Your task to perform on an android device: turn off notifications in google photos Image 0: 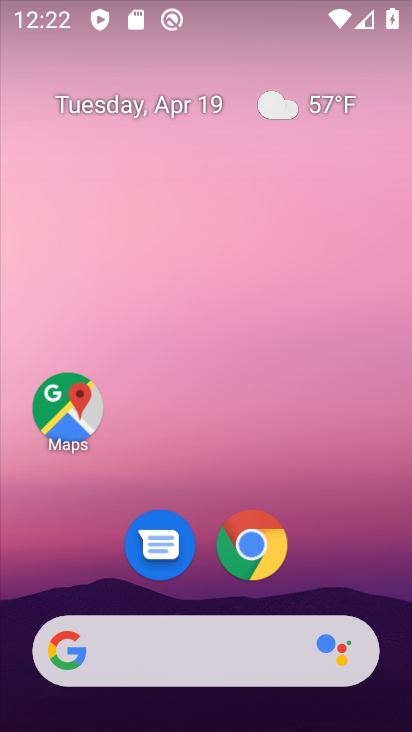
Step 0: drag from (198, 489) to (260, 7)
Your task to perform on an android device: turn off notifications in google photos Image 1: 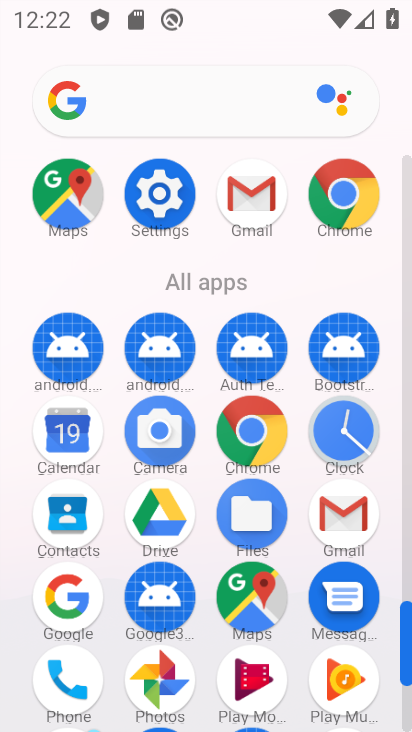
Step 1: click (172, 670)
Your task to perform on an android device: turn off notifications in google photos Image 2: 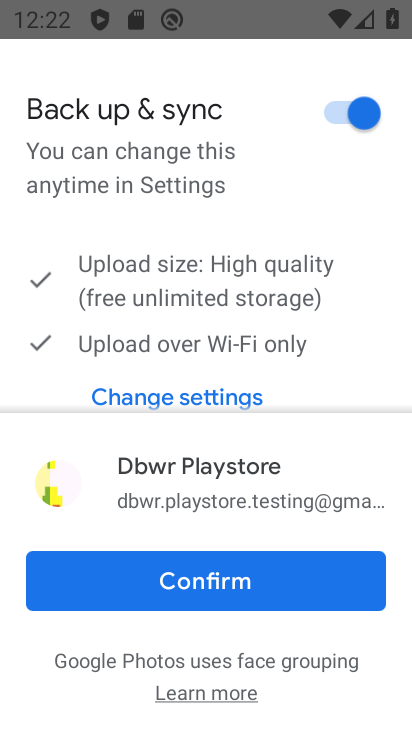
Step 2: click (196, 575)
Your task to perform on an android device: turn off notifications in google photos Image 3: 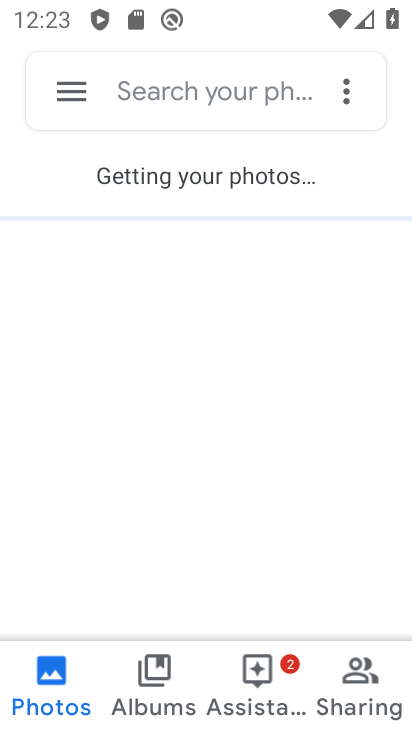
Step 3: click (61, 85)
Your task to perform on an android device: turn off notifications in google photos Image 4: 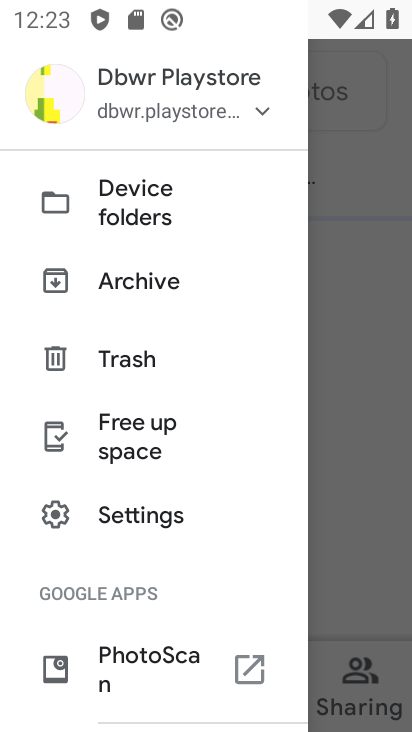
Step 4: drag from (164, 607) to (270, 96)
Your task to perform on an android device: turn off notifications in google photos Image 5: 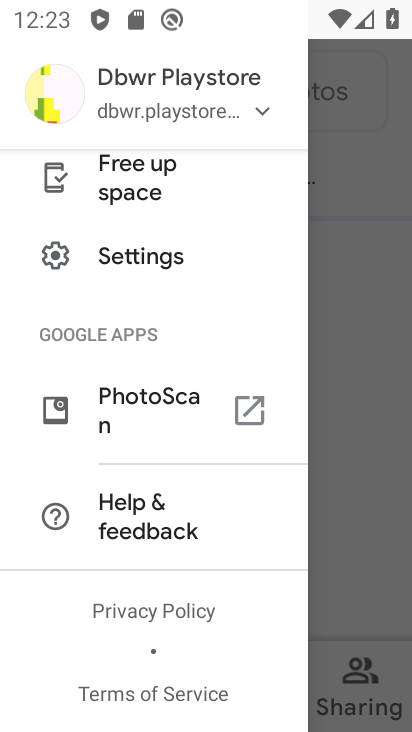
Step 5: click (125, 255)
Your task to perform on an android device: turn off notifications in google photos Image 6: 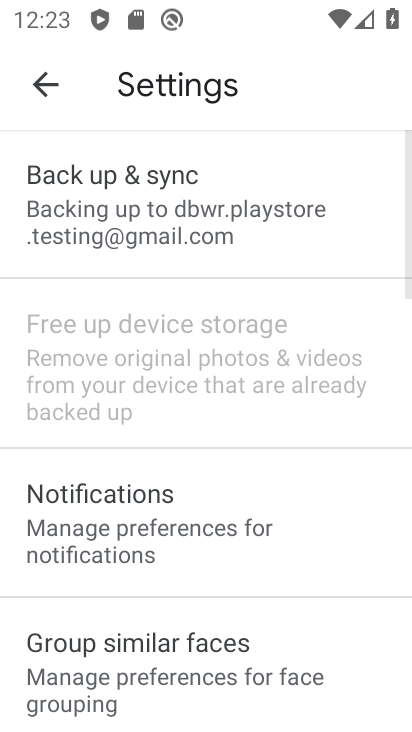
Step 6: click (138, 516)
Your task to perform on an android device: turn off notifications in google photos Image 7: 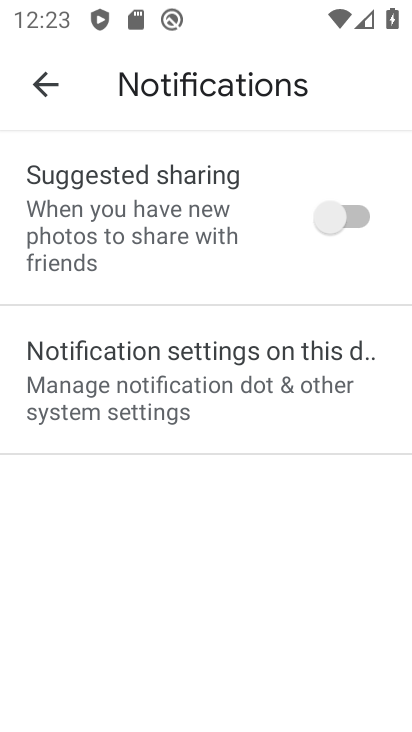
Step 7: click (141, 390)
Your task to perform on an android device: turn off notifications in google photos Image 8: 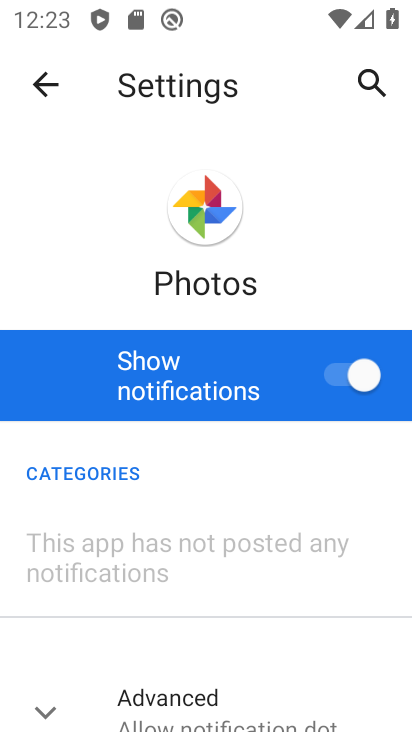
Step 8: click (344, 375)
Your task to perform on an android device: turn off notifications in google photos Image 9: 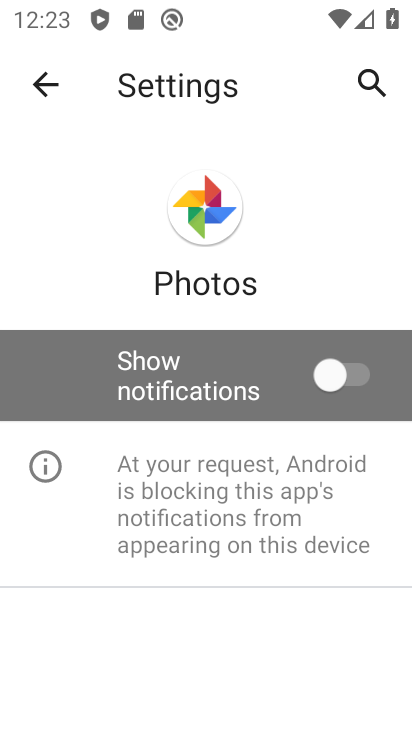
Step 9: task complete